Your task to perform on an android device: Open the Play Movies app and select the watchlist tab. Image 0: 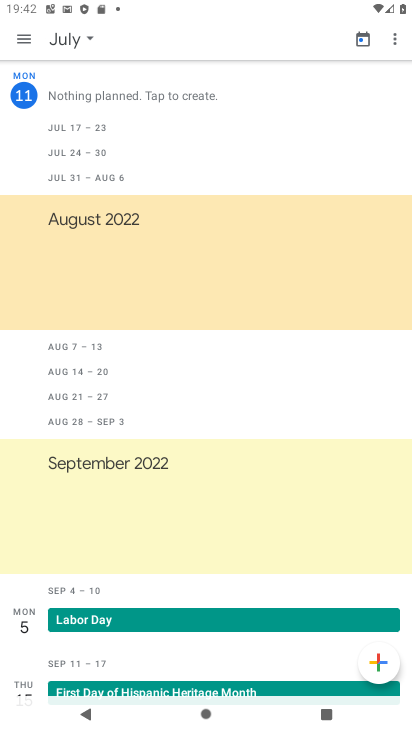
Step 0: press home button
Your task to perform on an android device: Open the Play Movies app and select the watchlist tab. Image 1: 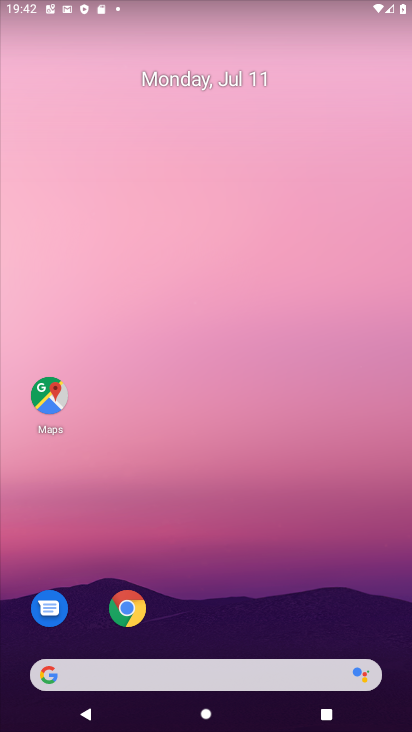
Step 1: drag from (246, 601) to (180, 20)
Your task to perform on an android device: Open the Play Movies app and select the watchlist tab. Image 2: 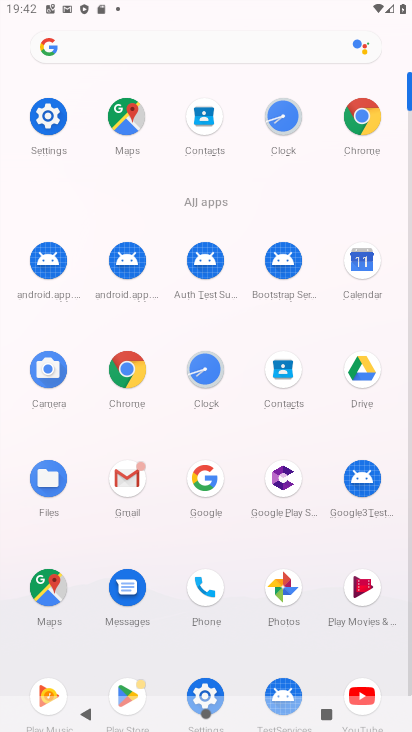
Step 2: click (362, 604)
Your task to perform on an android device: Open the Play Movies app and select the watchlist tab. Image 3: 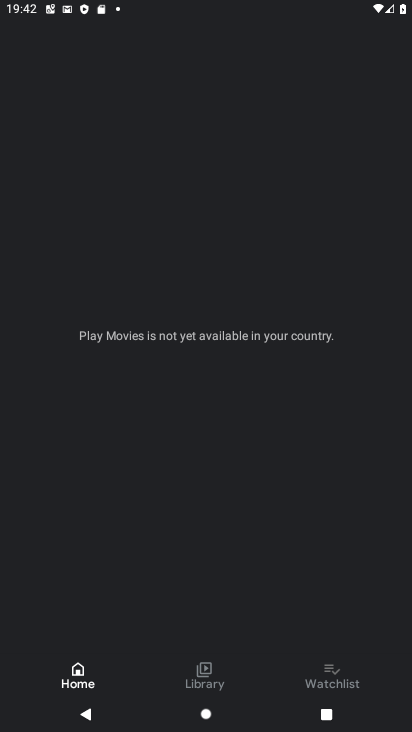
Step 3: click (314, 668)
Your task to perform on an android device: Open the Play Movies app and select the watchlist tab. Image 4: 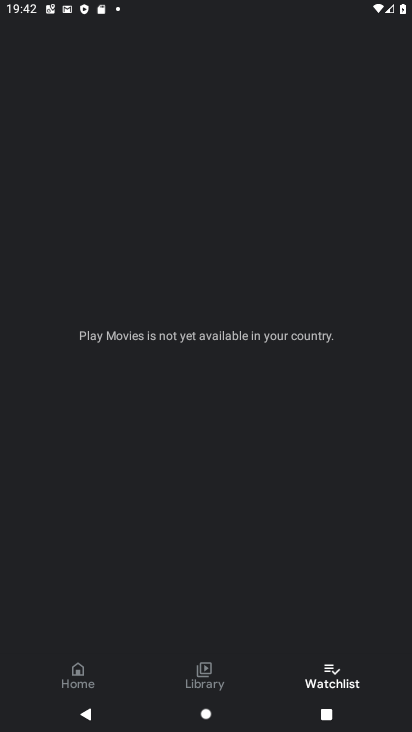
Step 4: task complete